Your task to perform on an android device: Is it going to rain this weekend? Image 0: 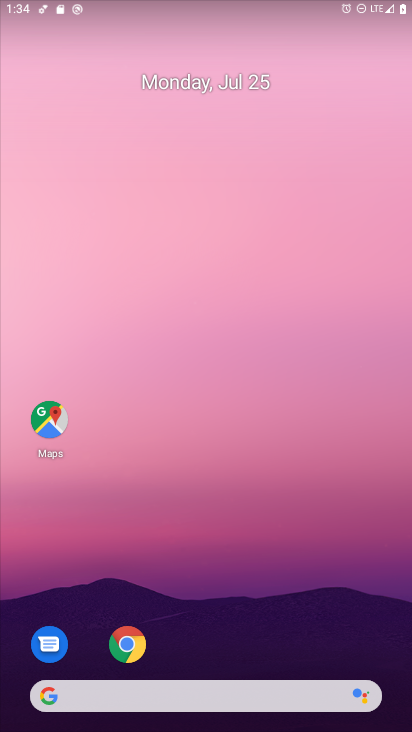
Step 0: click (149, 689)
Your task to perform on an android device: Is it going to rain this weekend? Image 1: 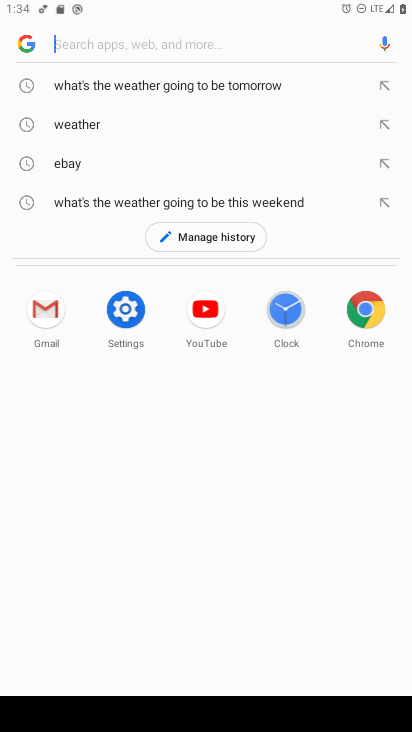
Step 1: type "is it going to rain this weekend"
Your task to perform on an android device: Is it going to rain this weekend? Image 2: 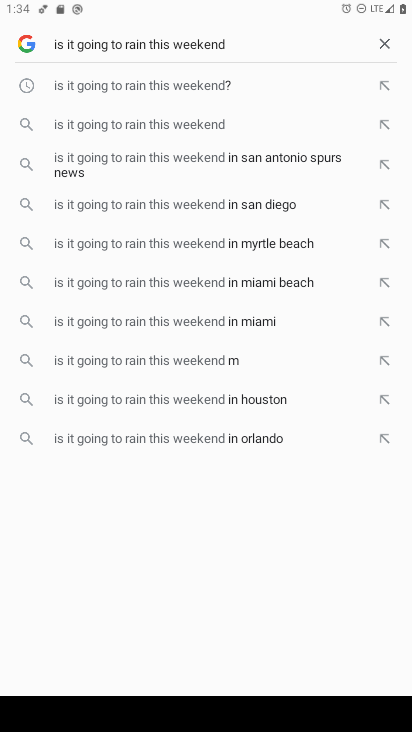
Step 2: click (118, 87)
Your task to perform on an android device: Is it going to rain this weekend? Image 3: 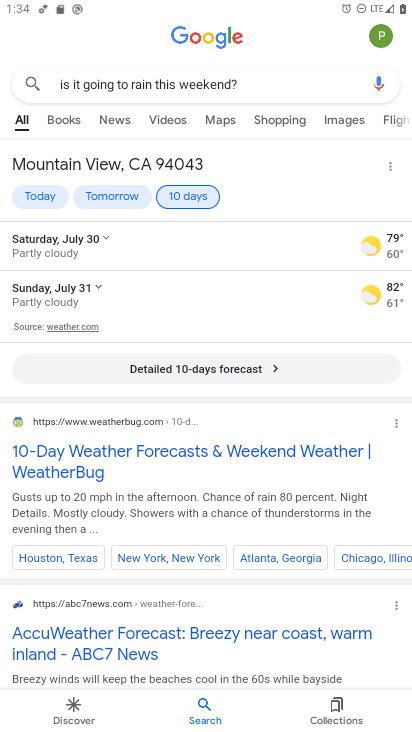
Step 3: task complete